Your task to perform on an android device: Do I have any events this weekend? Image 0: 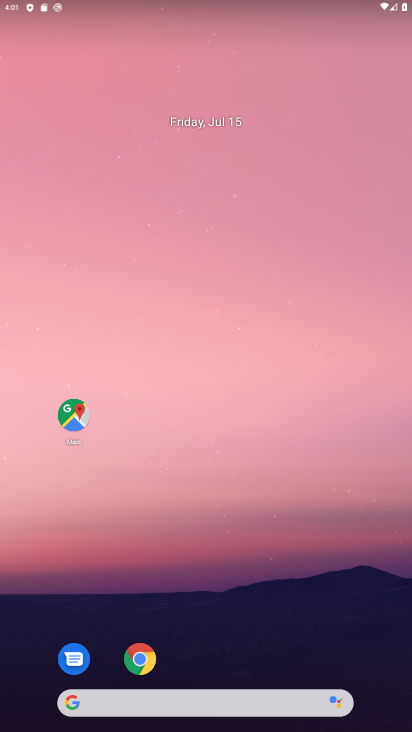
Step 0: click (184, 113)
Your task to perform on an android device: Do I have any events this weekend? Image 1: 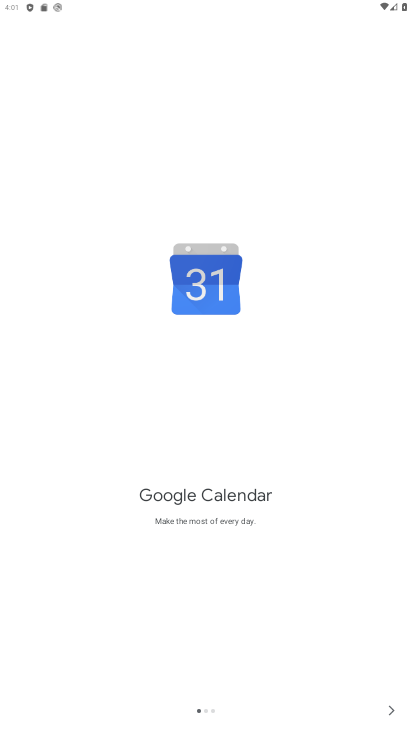
Step 1: click (392, 715)
Your task to perform on an android device: Do I have any events this weekend? Image 2: 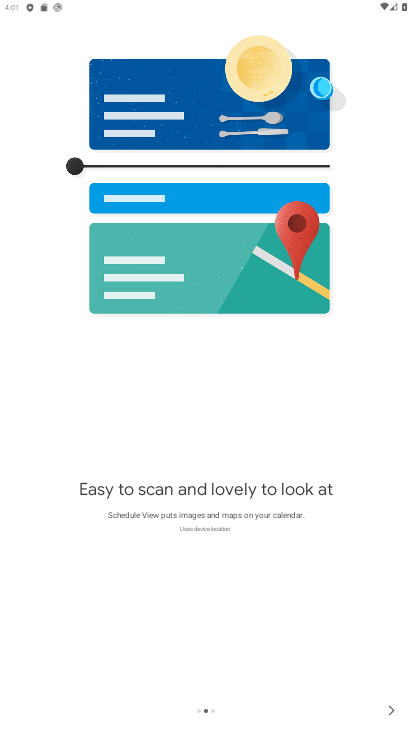
Step 2: click (392, 715)
Your task to perform on an android device: Do I have any events this weekend? Image 3: 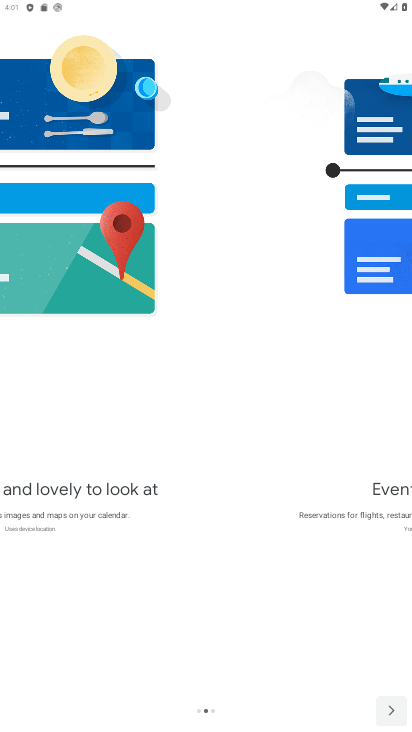
Step 3: click (392, 715)
Your task to perform on an android device: Do I have any events this weekend? Image 4: 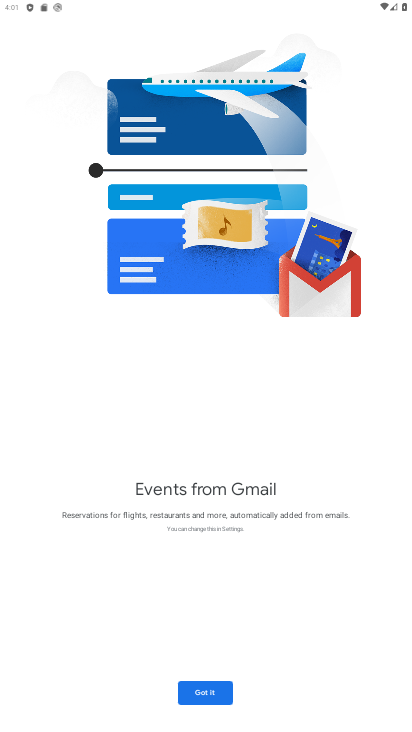
Step 4: click (226, 695)
Your task to perform on an android device: Do I have any events this weekend? Image 5: 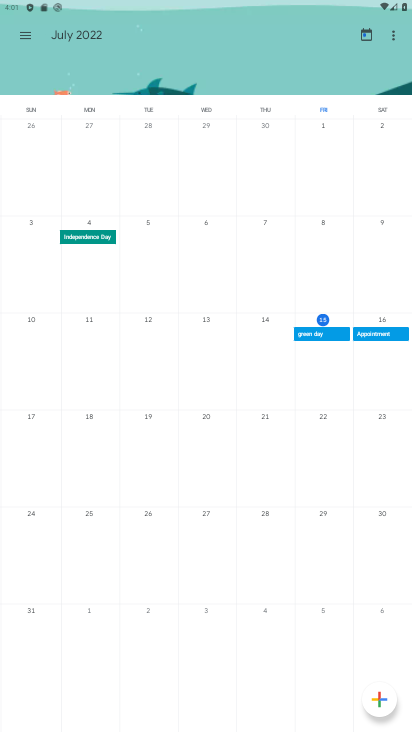
Step 5: click (29, 31)
Your task to perform on an android device: Do I have any events this weekend? Image 6: 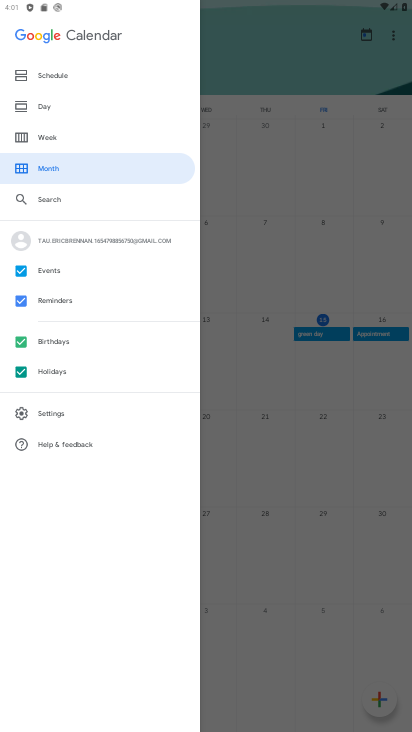
Step 6: click (18, 372)
Your task to perform on an android device: Do I have any events this weekend? Image 7: 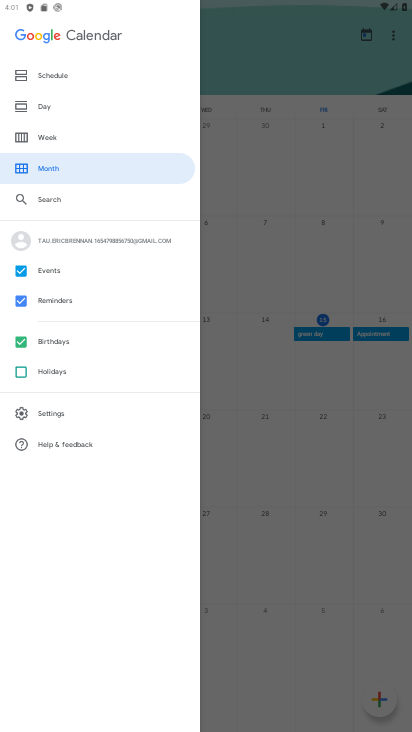
Step 7: click (16, 334)
Your task to perform on an android device: Do I have any events this weekend? Image 8: 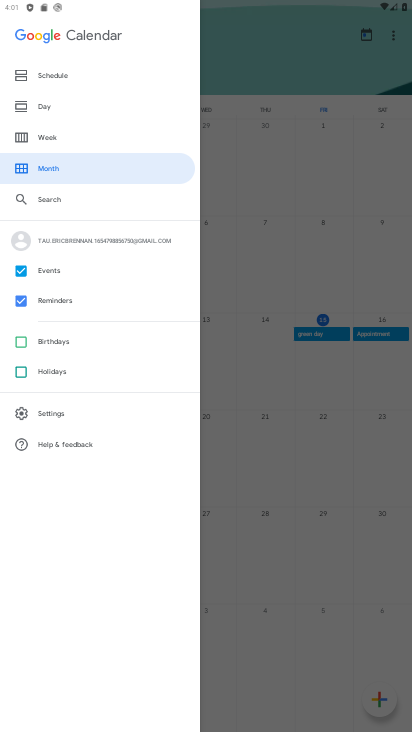
Step 8: click (23, 298)
Your task to perform on an android device: Do I have any events this weekend? Image 9: 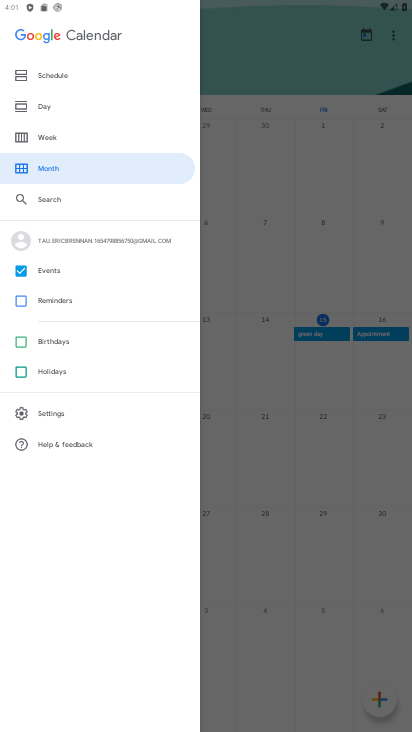
Step 9: click (91, 134)
Your task to perform on an android device: Do I have any events this weekend? Image 10: 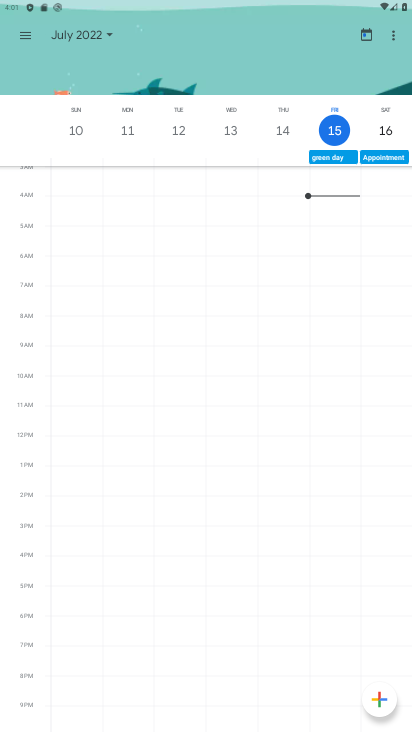
Step 10: task complete